Your task to perform on an android device: Open maps Image 0: 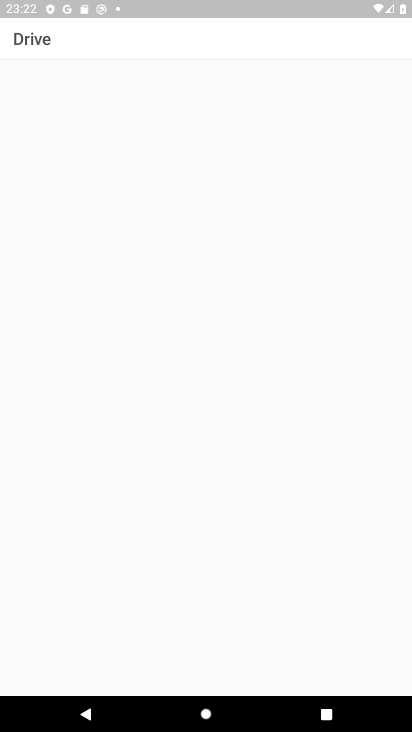
Step 0: press home button
Your task to perform on an android device: Open maps Image 1: 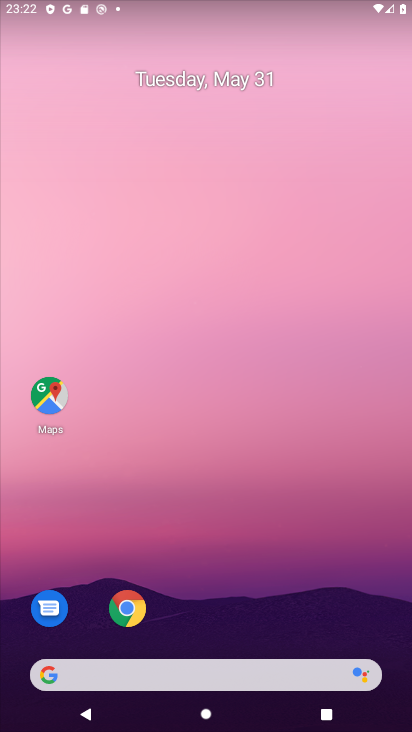
Step 1: drag from (278, 596) to (215, 133)
Your task to perform on an android device: Open maps Image 2: 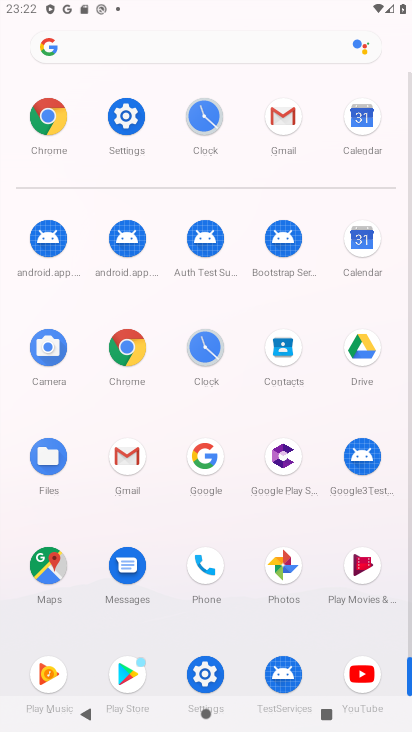
Step 2: click (42, 558)
Your task to perform on an android device: Open maps Image 3: 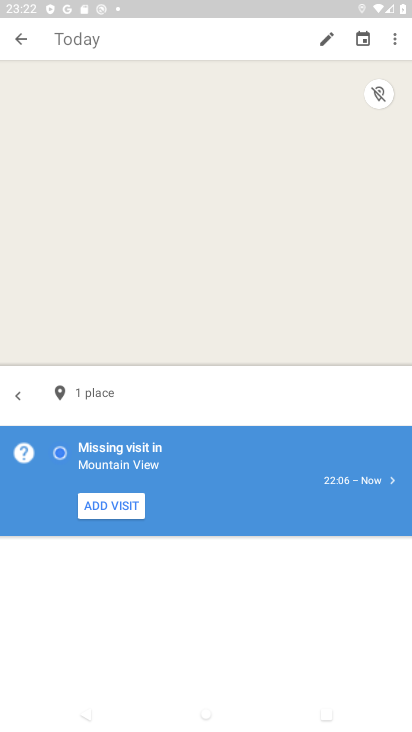
Step 3: task complete